Your task to perform on an android device: What is the news today? Image 0: 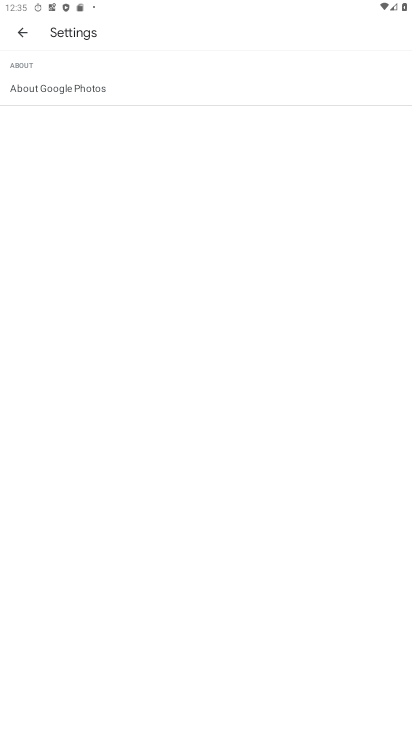
Step 0: press home button
Your task to perform on an android device: What is the news today? Image 1: 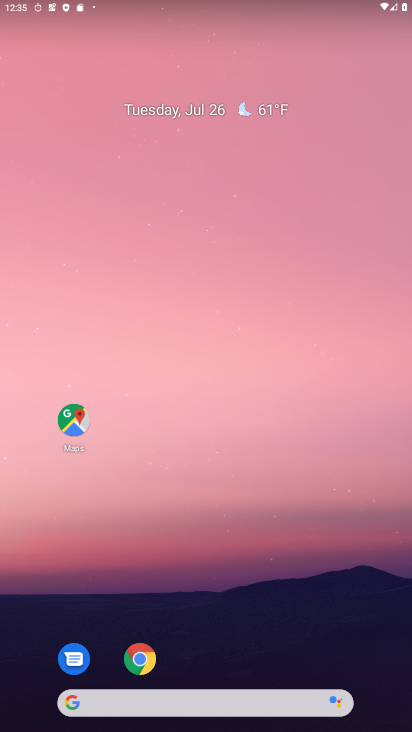
Step 1: click (111, 703)
Your task to perform on an android device: What is the news today? Image 2: 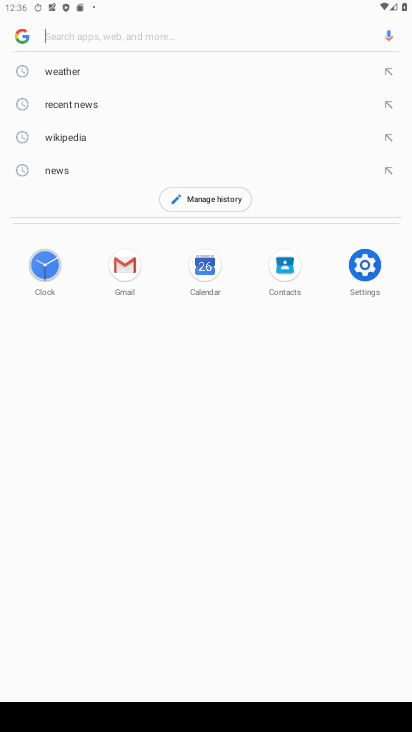
Step 2: type "What is the news today?"
Your task to perform on an android device: What is the news today? Image 3: 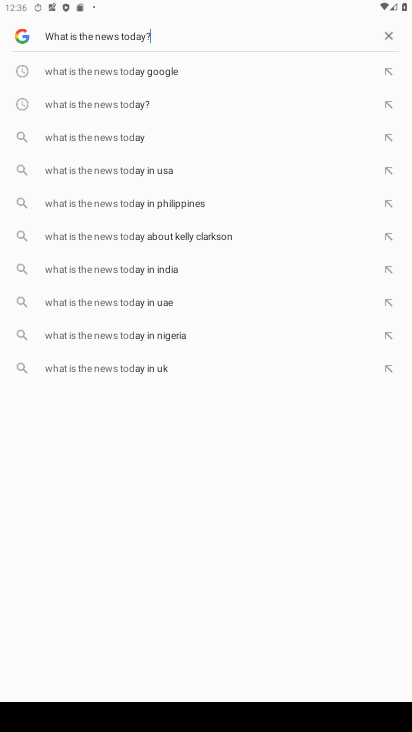
Step 3: type ""
Your task to perform on an android device: What is the news today? Image 4: 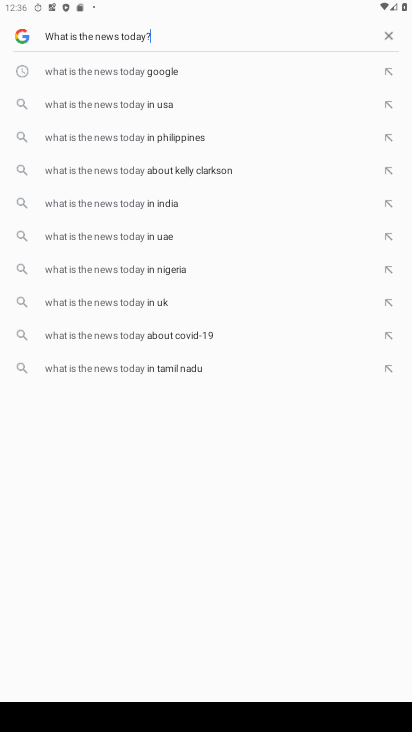
Step 4: type ""
Your task to perform on an android device: What is the news today? Image 5: 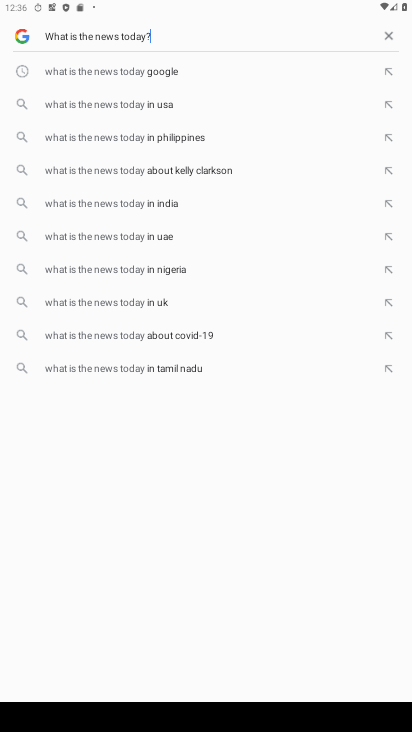
Step 5: type ""
Your task to perform on an android device: What is the news today? Image 6: 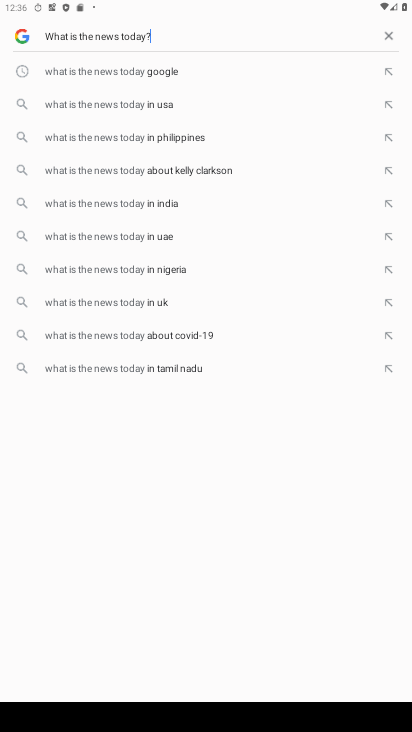
Step 6: task complete